Your task to perform on an android device: Is it going to rain this weekend? Image 0: 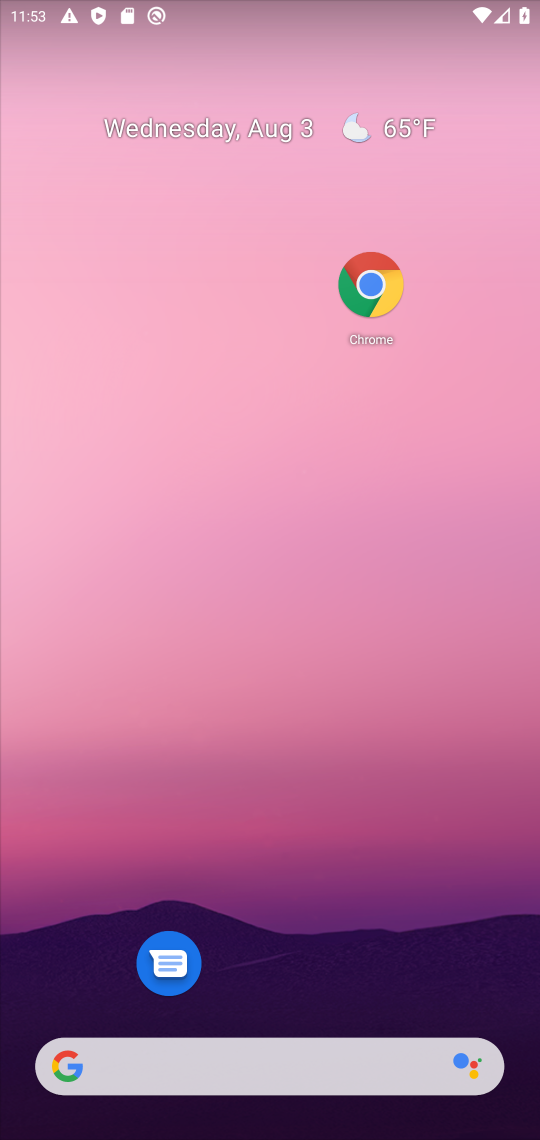
Step 0: drag from (265, 991) to (390, 508)
Your task to perform on an android device: Is it going to rain this weekend? Image 1: 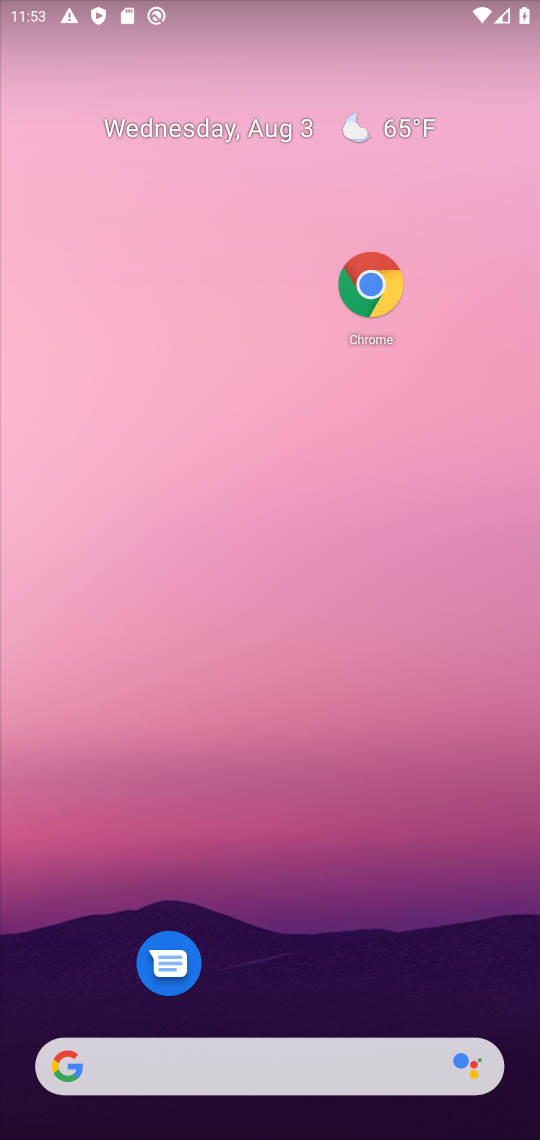
Step 1: drag from (228, 858) to (339, 295)
Your task to perform on an android device: Is it going to rain this weekend? Image 2: 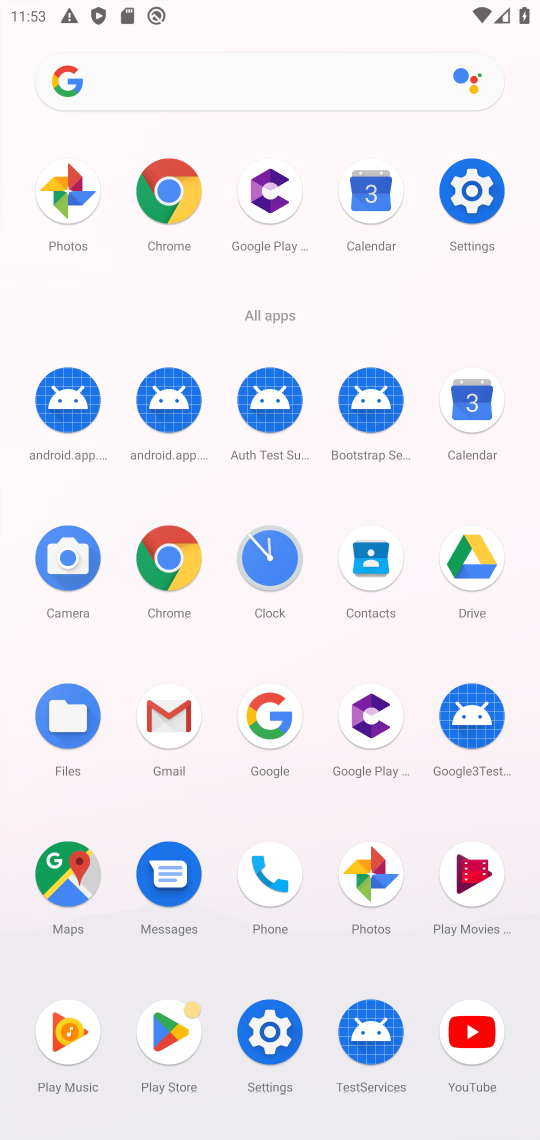
Step 2: click (143, 208)
Your task to perform on an android device: Is it going to rain this weekend? Image 3: 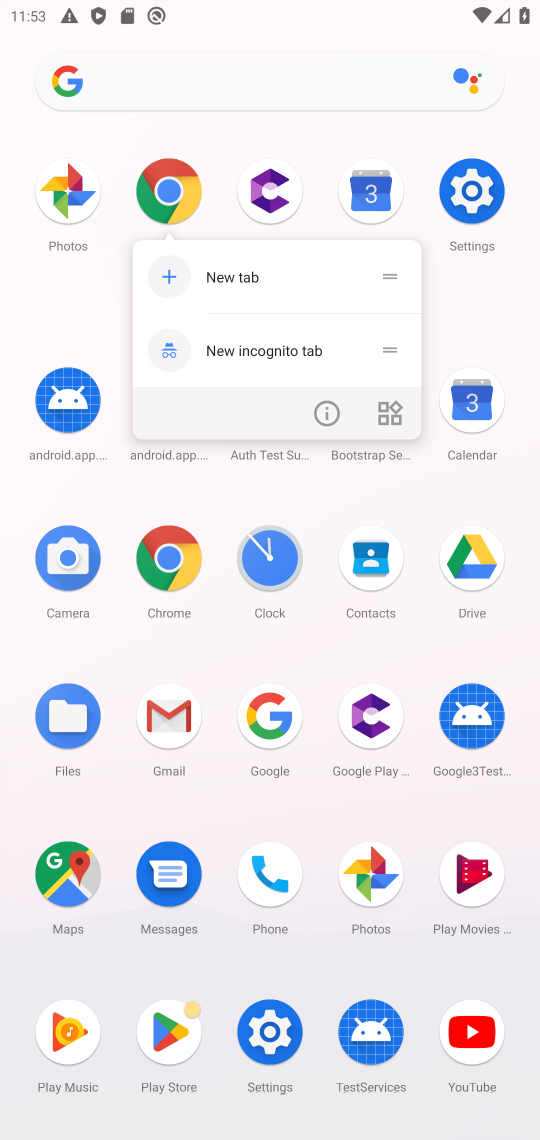
Step 3: click (172, 173)
Your task to perform on an android device: Is it going to rain this weekend? Image 4: 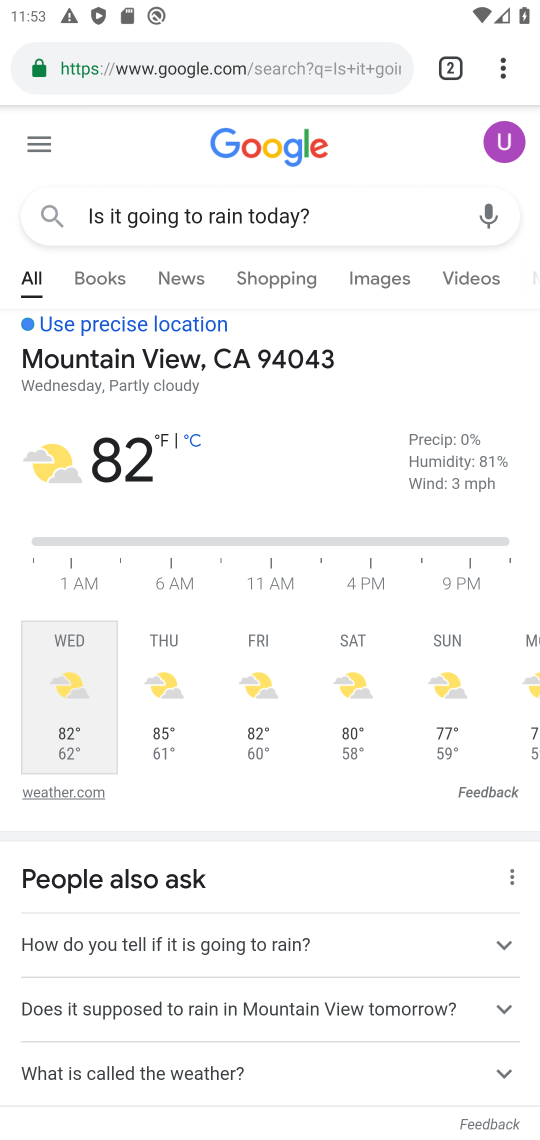
Step 4: click (512, 76)
Your task to perform on an android device: Is it going to rain this weekend? Image 5: 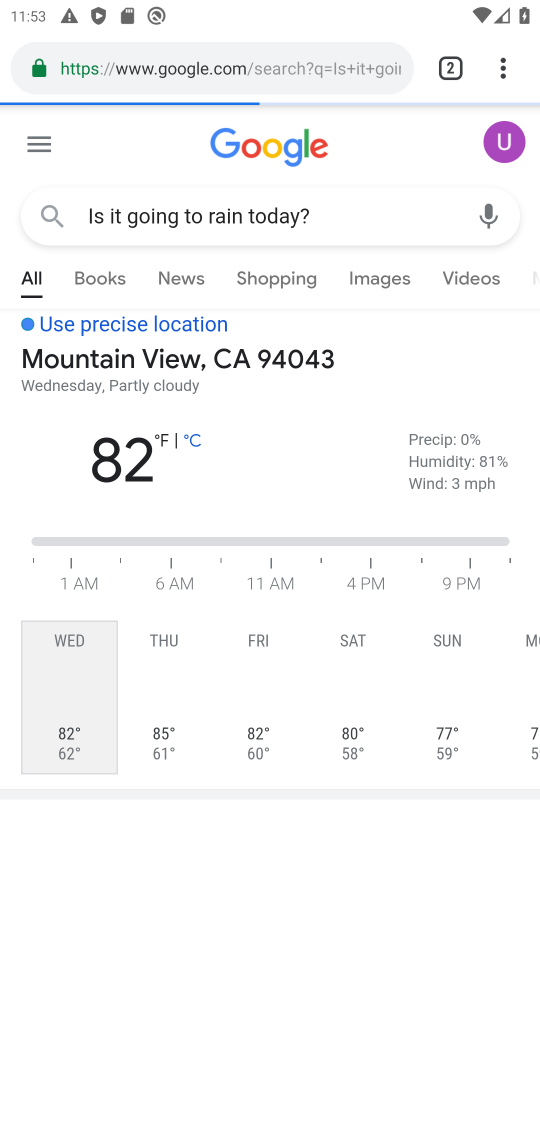
Step 5: click (512, 76)
Your task to perform on an android device: Is it going to rain this weekend? Image 6: 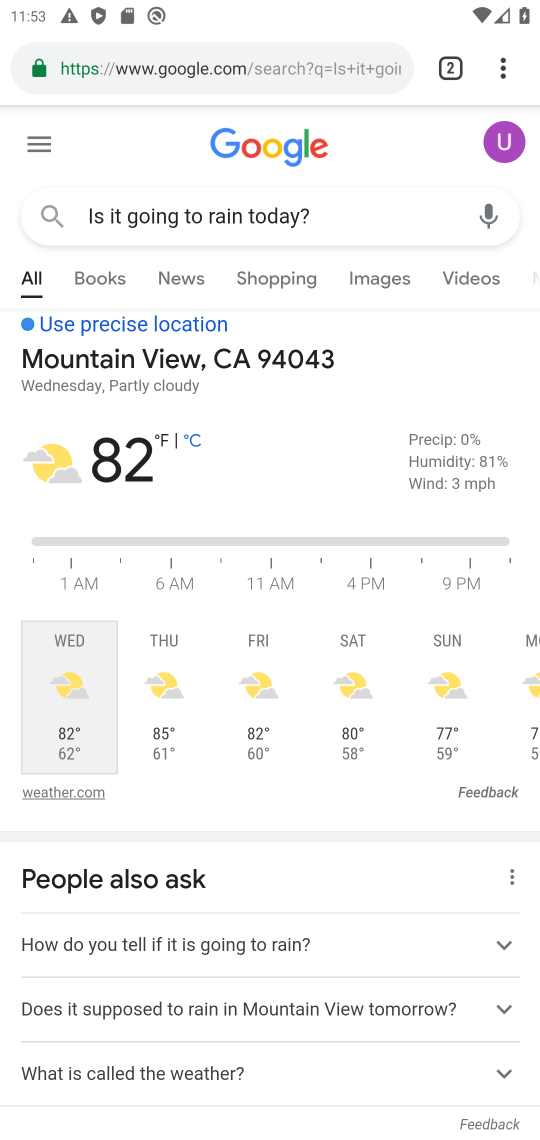
Step 6: click (506, 47)
Your task to perform on an android device: Is it going to rain this weekend? Image 7: 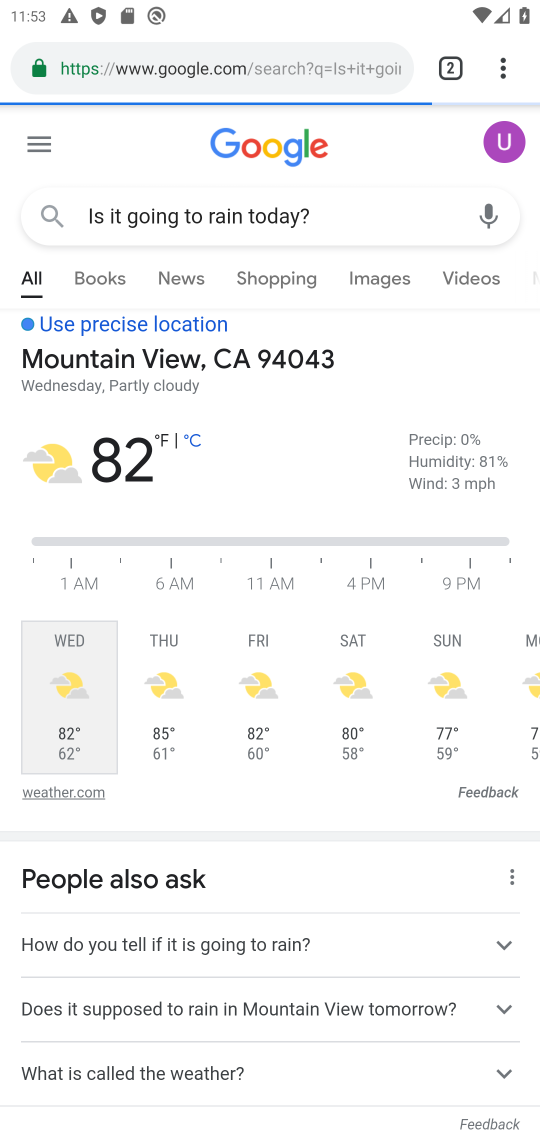
Step 7: click (494, 60)
Your task to perform on an android device: Is it going to rain this weekend? Image 8: 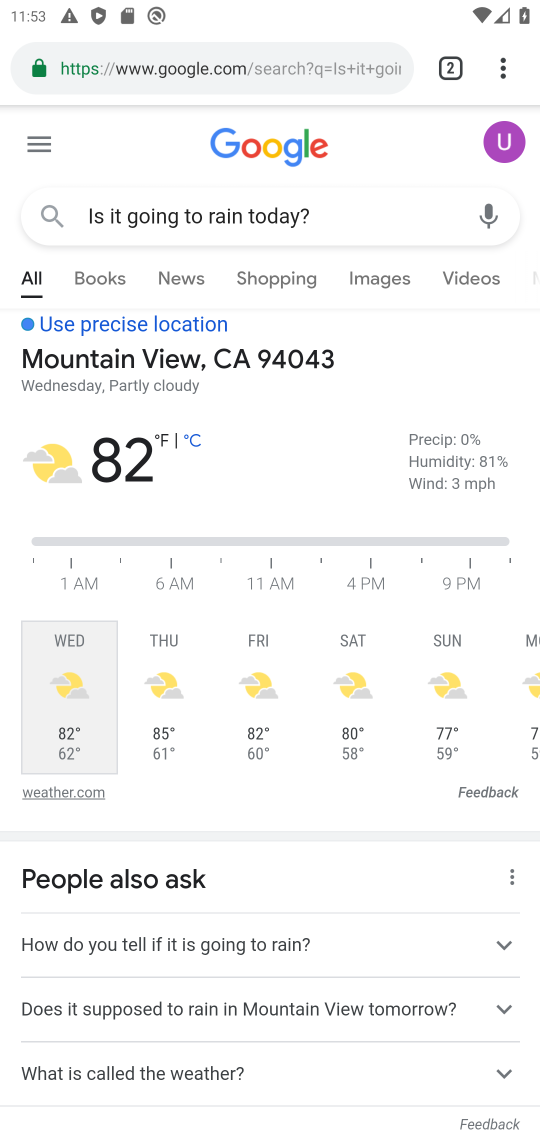
Step 8: click (503, 80)
Your task to perform on an android device: Is it going to rain this weekend? Image 9: 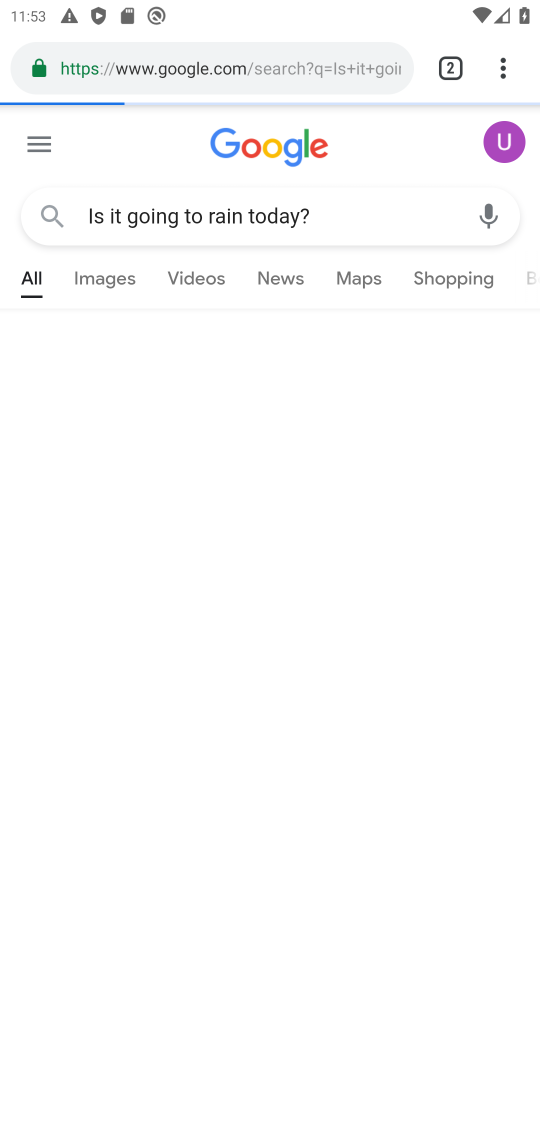
Step 9: click (503, 80)
Your task to perform on an android device: Is it going to rain this weekend? Image 10: 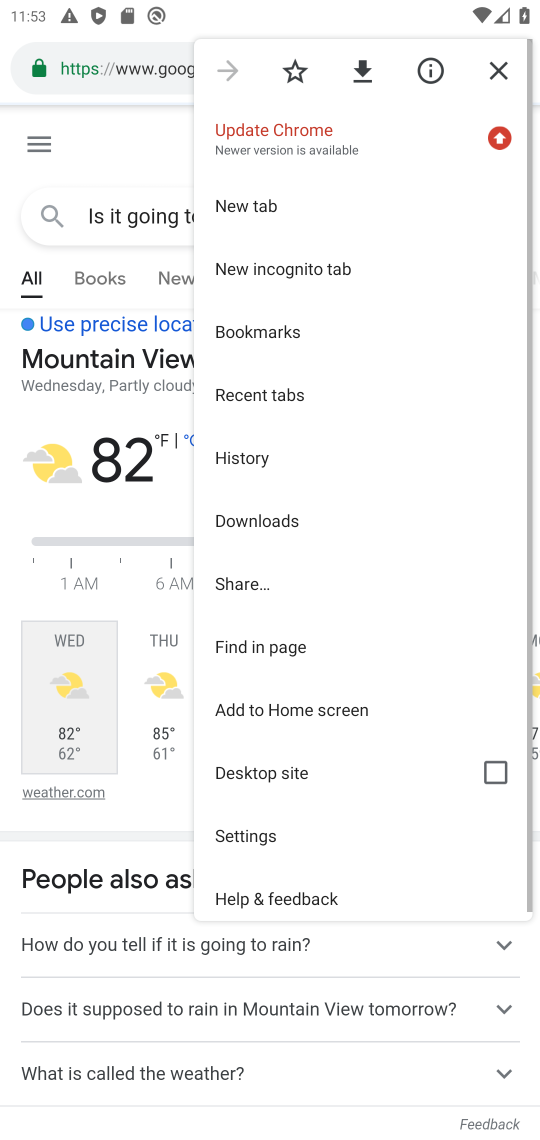
Step 10: click (233, 205)
Your task to perform on an android device: Is it going to rain this weekend? Image 11: 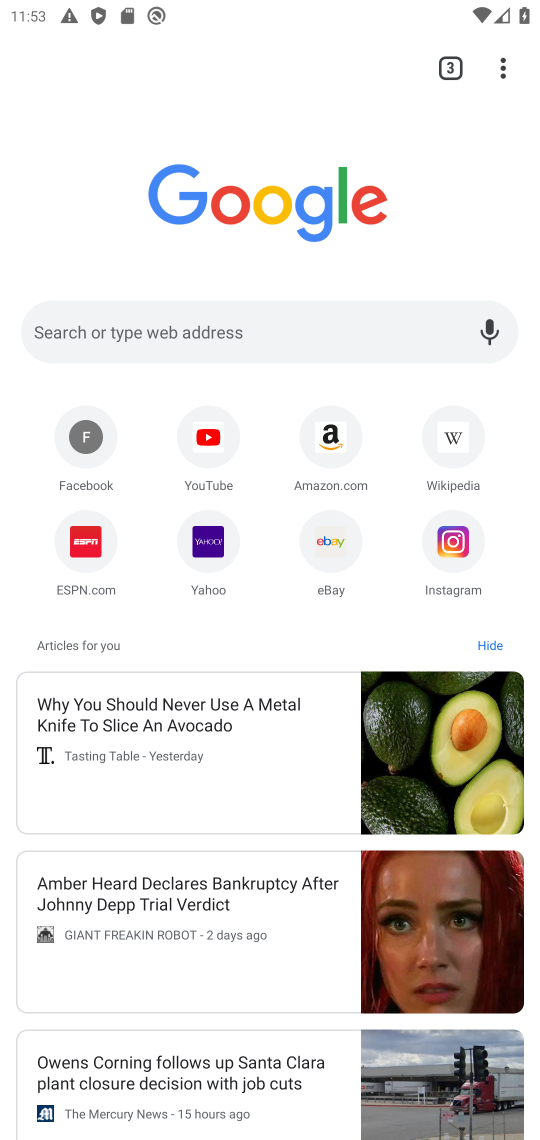
Step 11: click (347, 318)
Your task to perform on an android device: Is it going to rain this weekend? Image 12: 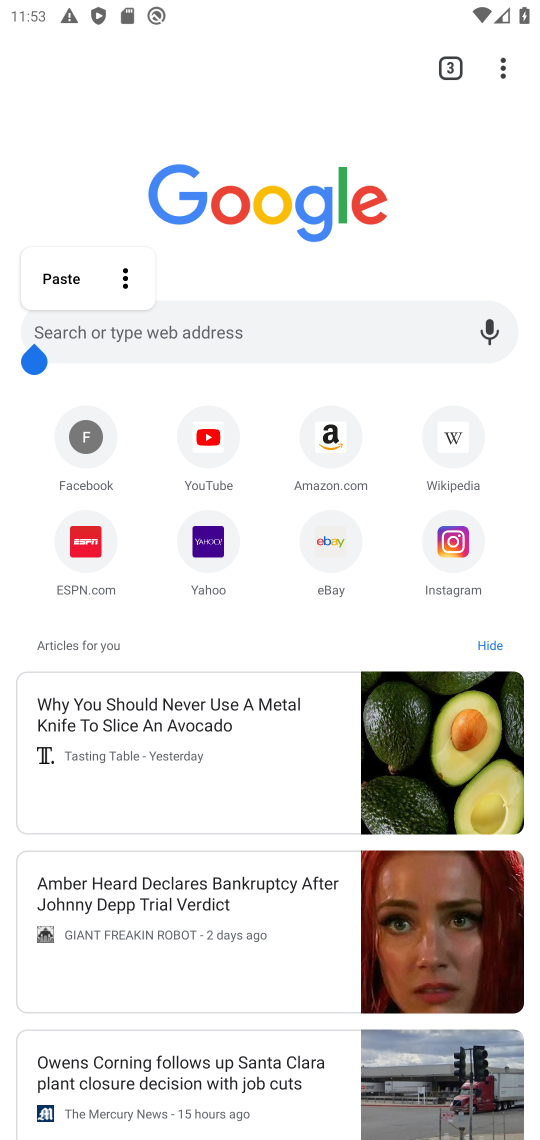
Step 12: type "Is it going to rain this weekend? "
Your task to perform on an android device: Is it going to rain this weekend? Image 13: 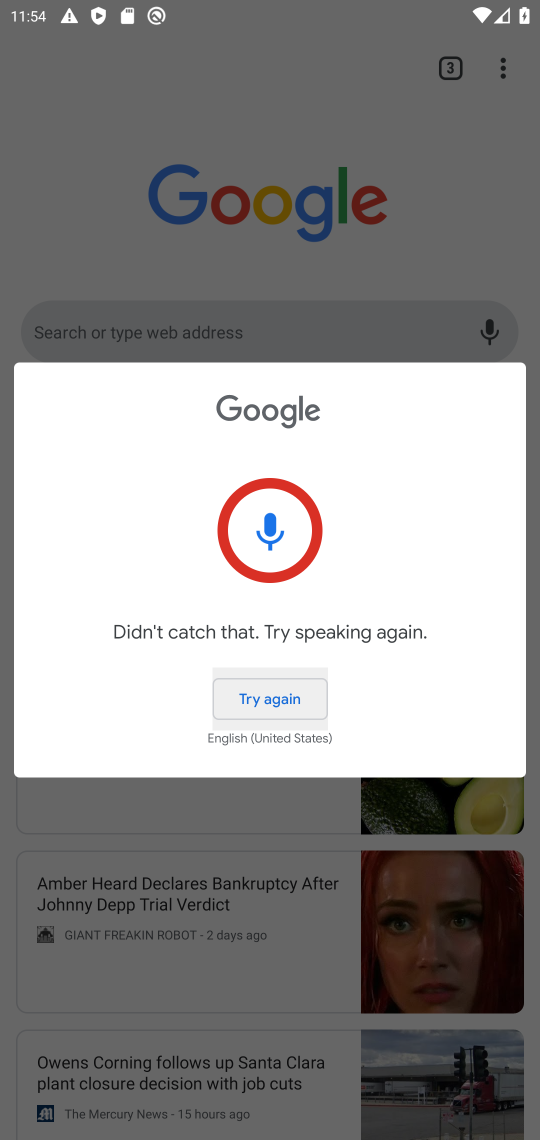
Step 13: click (417, 242)
Your task to perform on an android device: Is it going to rain this weekend? Image 14: 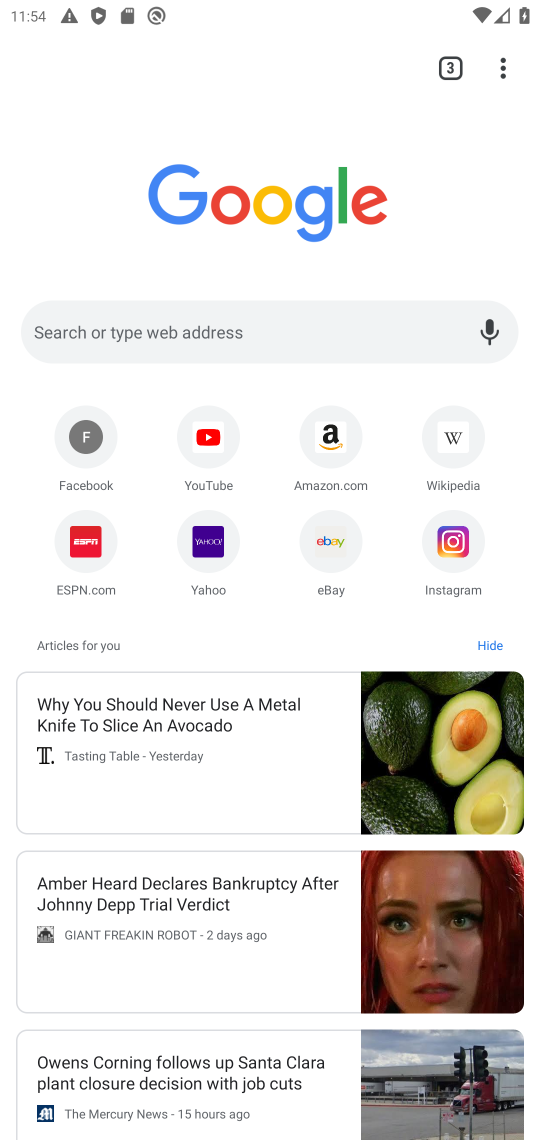
Step 14: click (390, 315)
Your task to perform on an android device: Is it going to rain this weekend? Image 15: 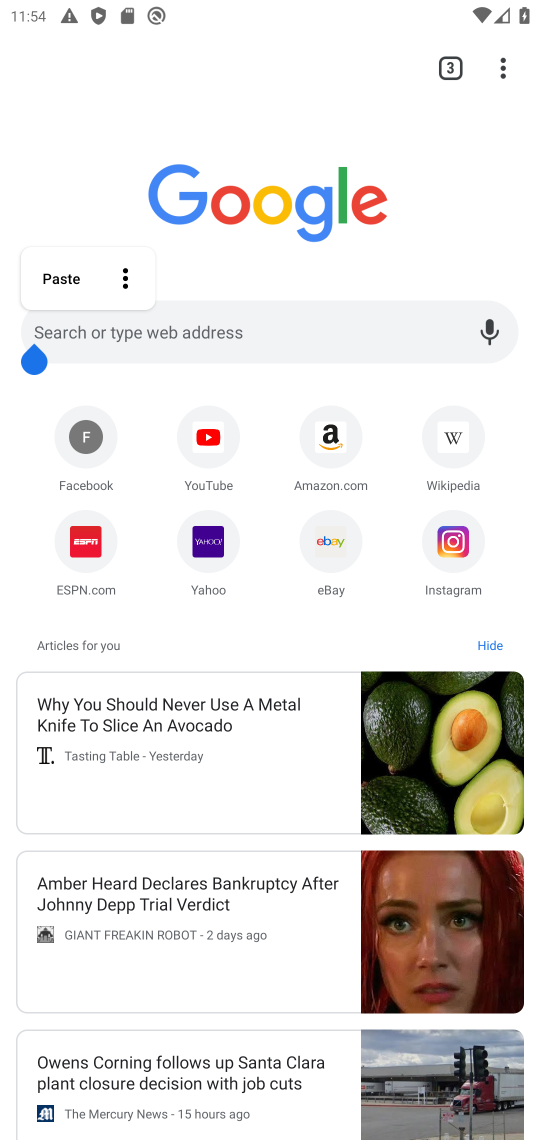
Step 15: type "Is it going to rain this weekend? "
Your task to perform on an android device: Is it going to rain this weekend? Image 16: 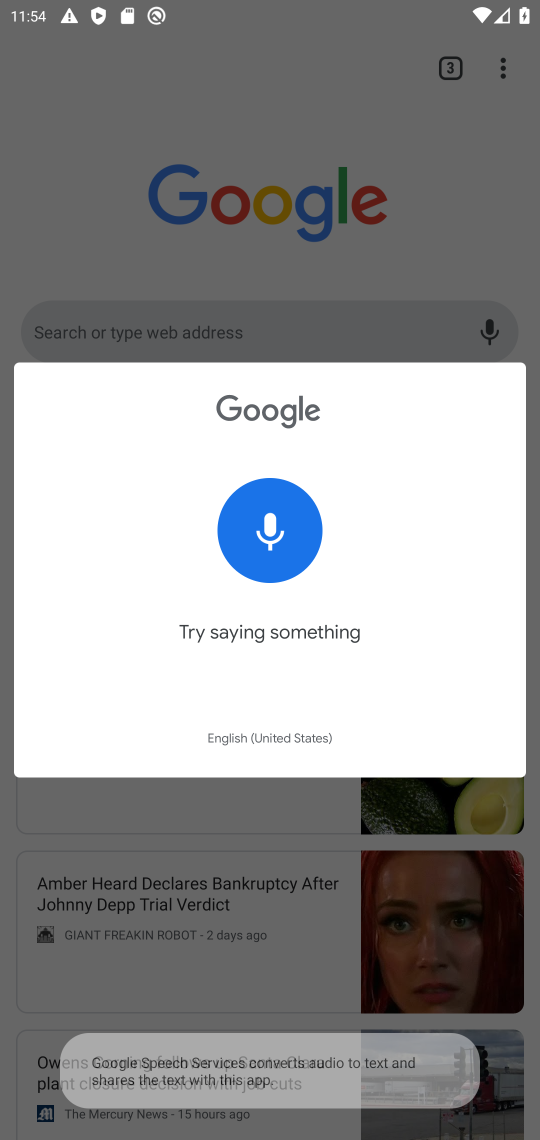
Step 16: click (355, 276)
Your task to perform on an android device: Is it going to rain this weekend? Image 17: 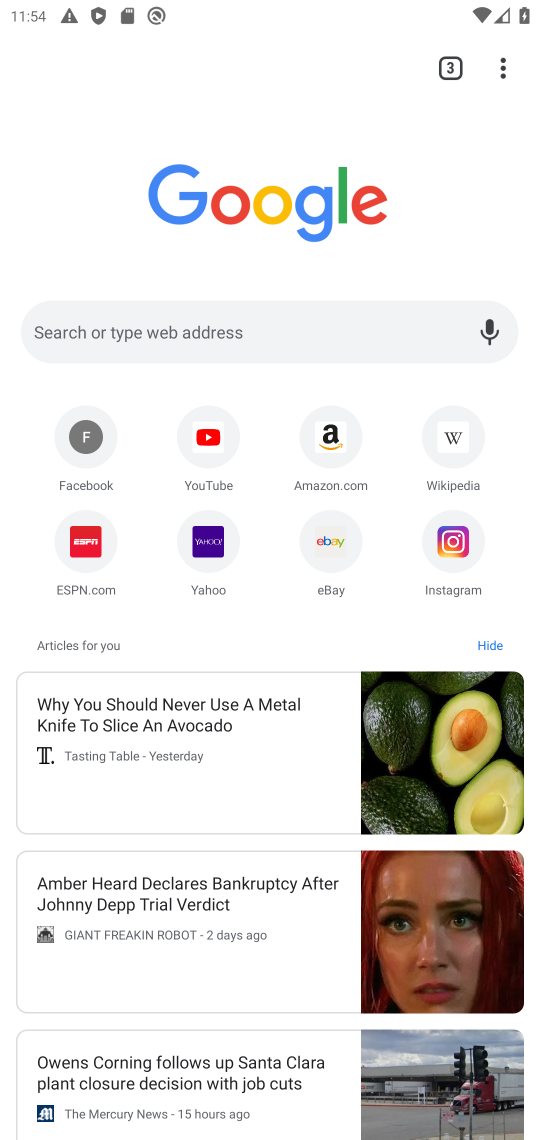
Step 17: click (350, 335)
Your task to perform on an android device: Is it going to rain this weekend? Image 18: 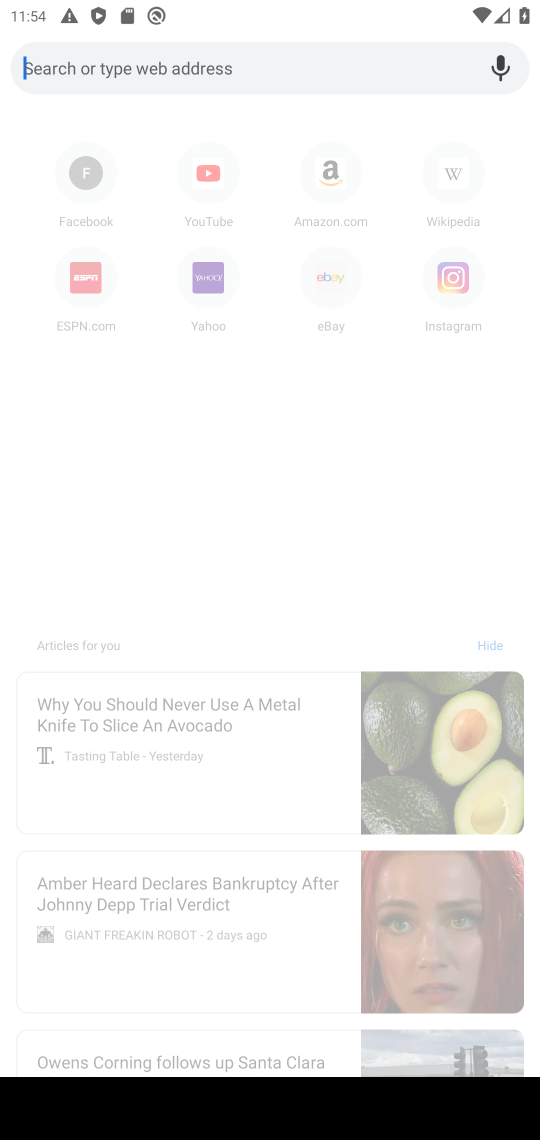
Step 18: type "Is it going to rain this weekend?"
Your task to perform on an android device: Is it going to rain this weekend? Image 19: 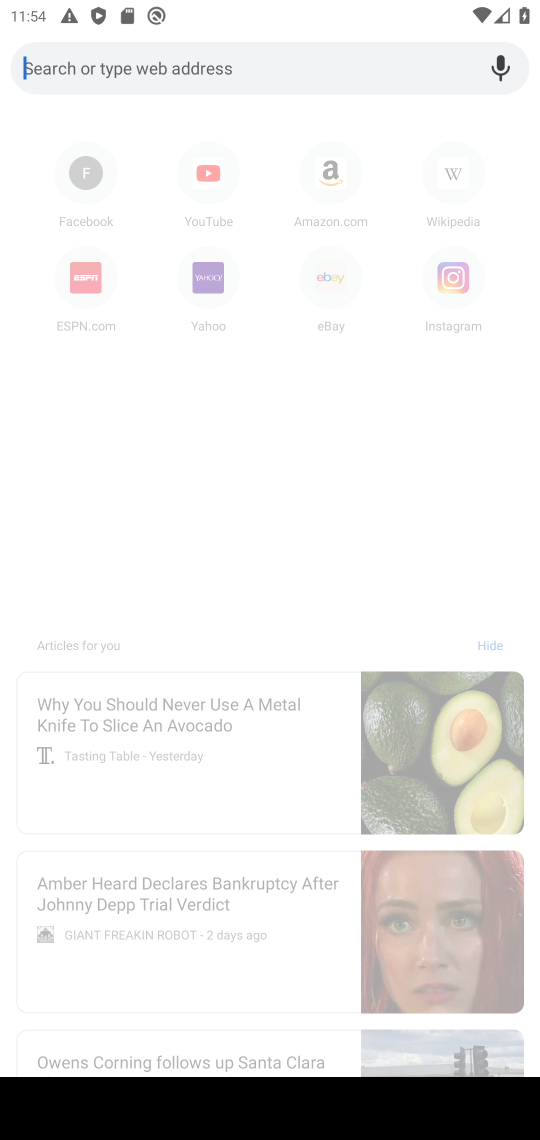
Step 19: click (254, 60)
Your task to perform on an android device: Is it going to rain this weekend? Image 20: 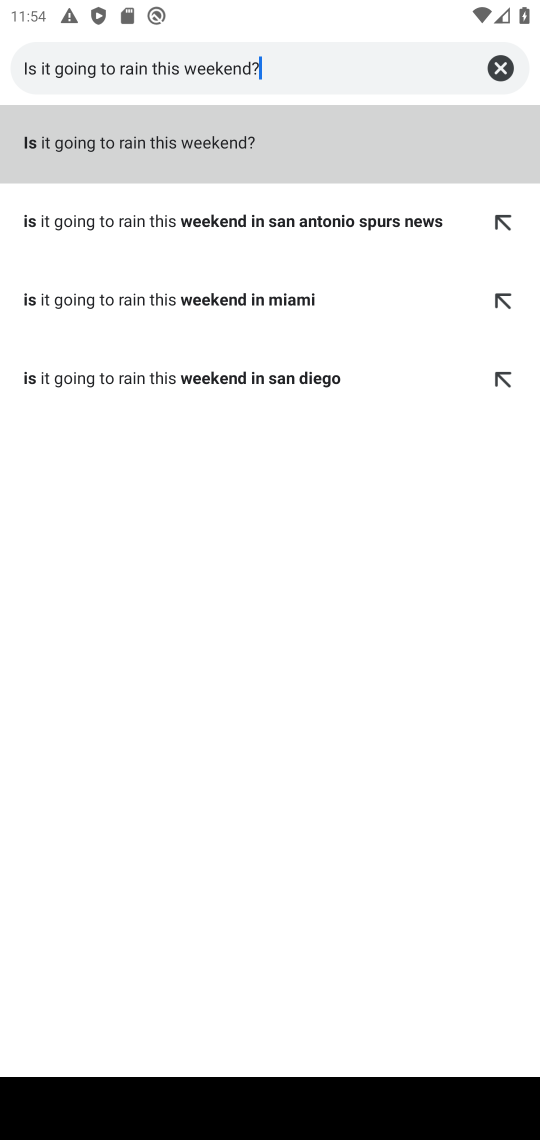
Step 20: type "Is it going to rain this weekend? "
Your task to perform on an android device: Is it going to rain this weekend? Image 21: 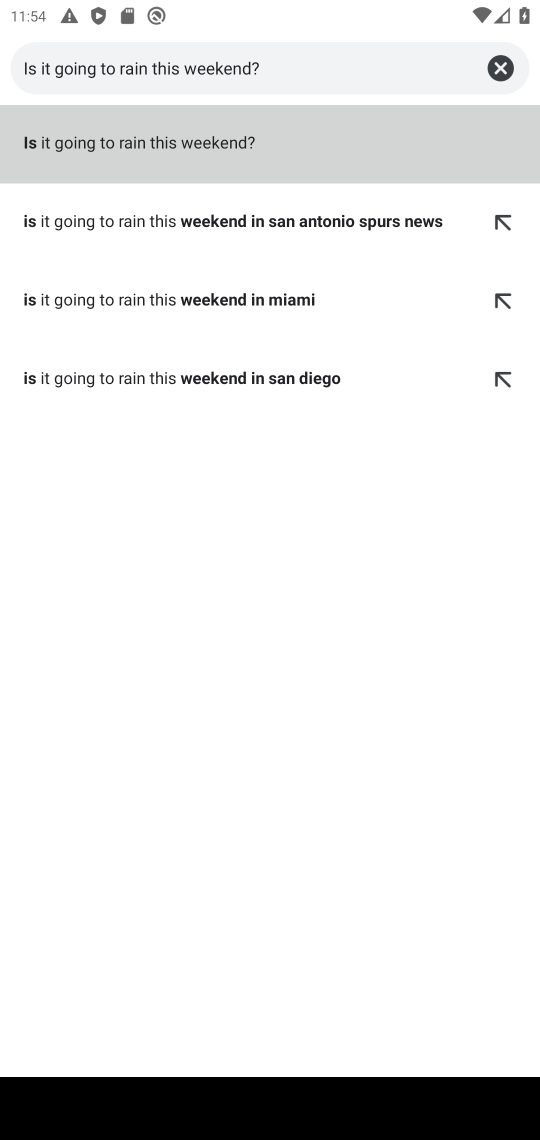
Step 21: click (175, 147)
Your task to perform on an android device: Is it going to rain this weekend? Image 22: 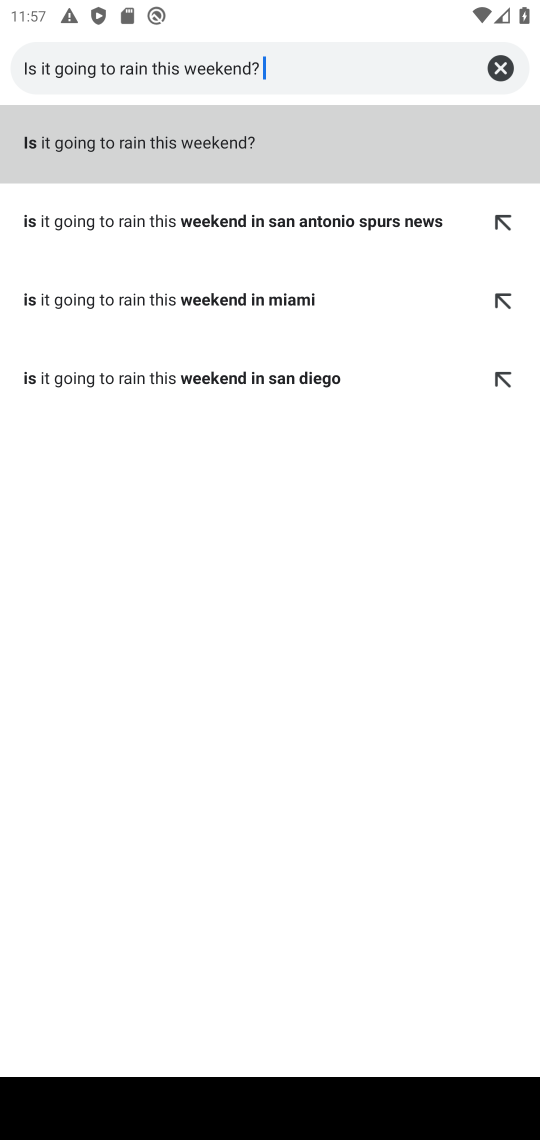
Step 22: click (175, 147)
Your task to perform on an android device: Is it going to rain this weekend? Image 23: 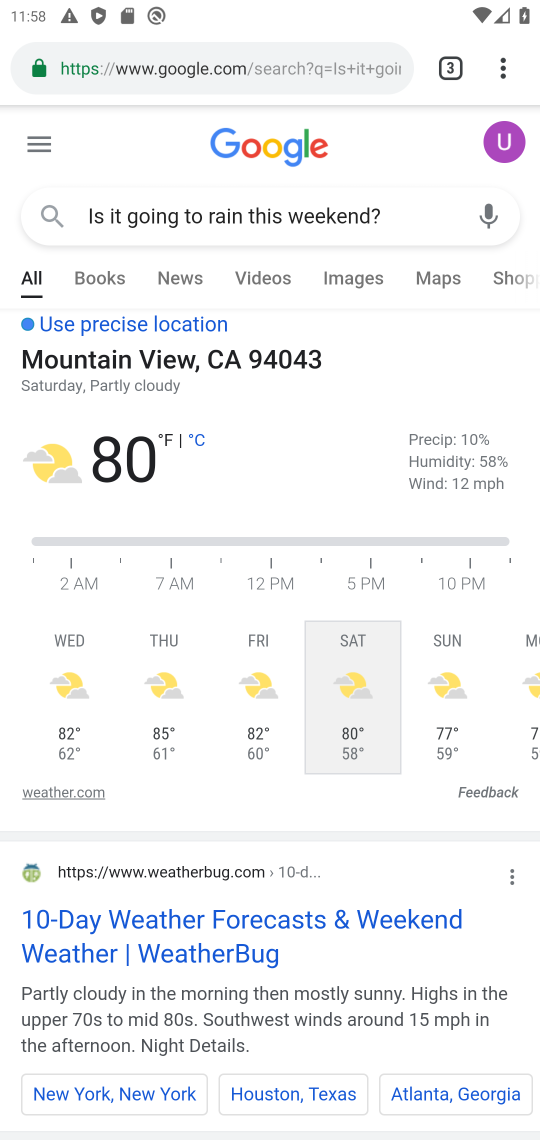
Step 23: task complete